Your task to perform on an android device: Go to eBay Image 0: 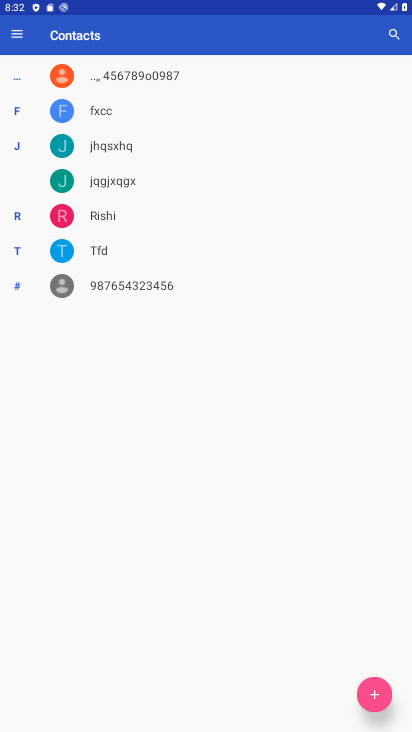
Step 0: press home button
Your task to perform on an android device: Go to eBay Image 1: 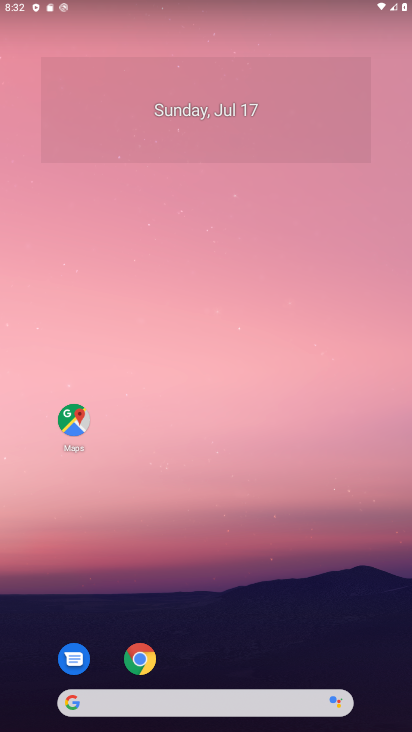
Step 1: click (138, 658)
Your task to perform on an android device: Go to eBay Image 2: 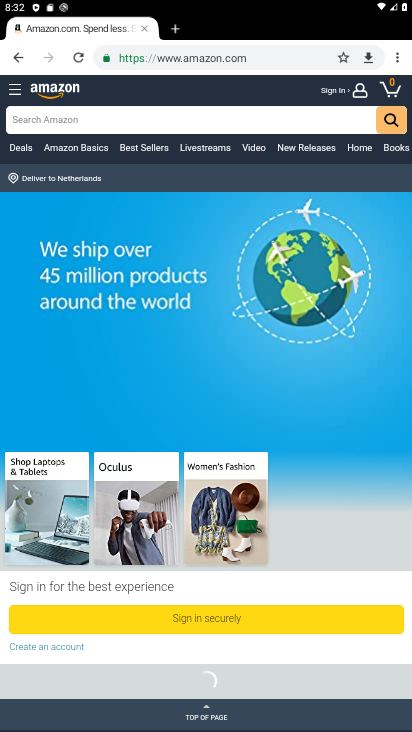
Step 2: click (278, 59)
Your task to perform on an android device: Go to eBay Image 3: 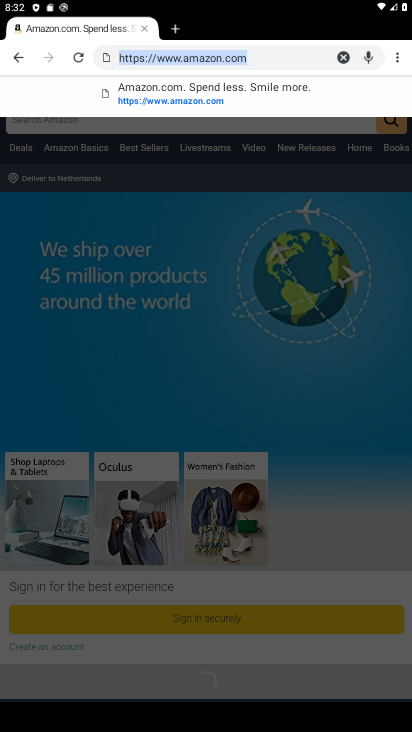
Step 3: type "eBay"
Your task to perform on an android device: Go to eBay Image 4: 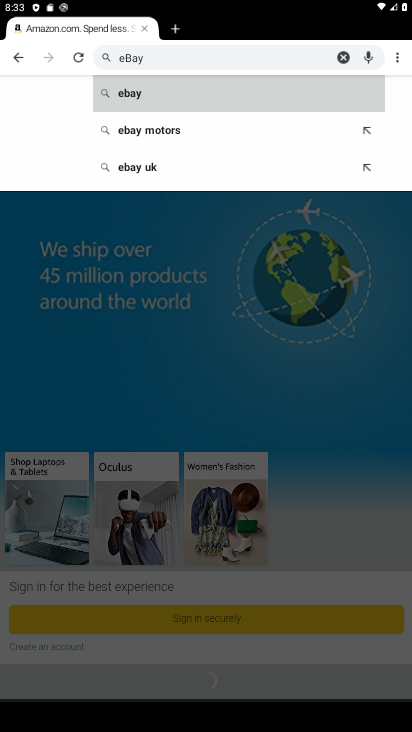
Step 4: click (250, 97)
Your task to perform on an android device: Go to eBay Image 5: 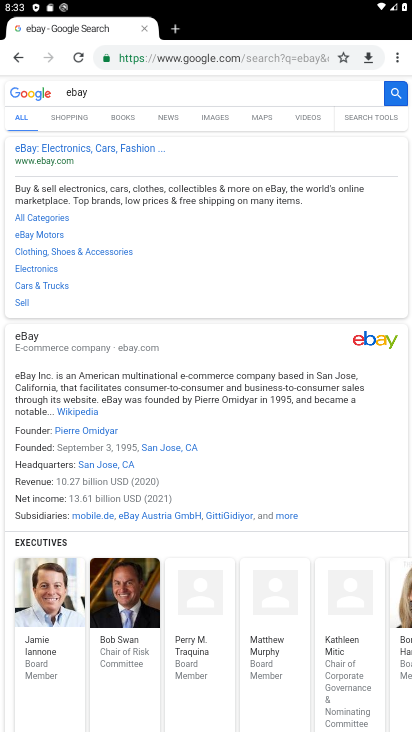
Step 5: click (154, 153)
Your task to perform on an android device: Go to eBay Image 6: 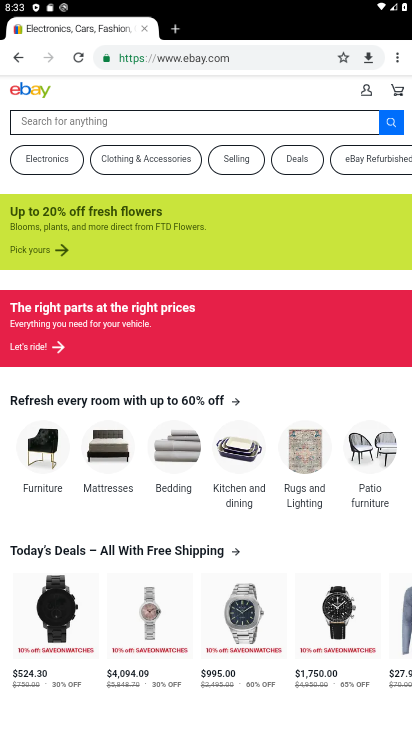
Step 6: task complete